Your task to perform on an android device: Open Amazon Image 0: 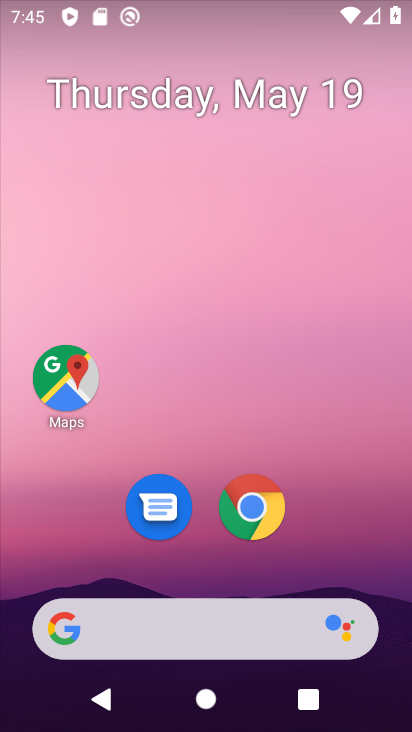
Step 0: drag from (310, 560) to (308, 204)
Your task to perform on an android device: Open Amazon Image 1: 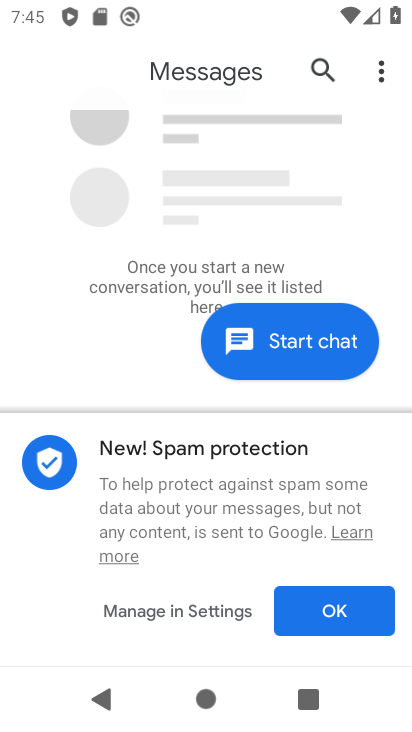
Step 1: press home button
Your task to perform on an android device: Open Amazon Image 2: 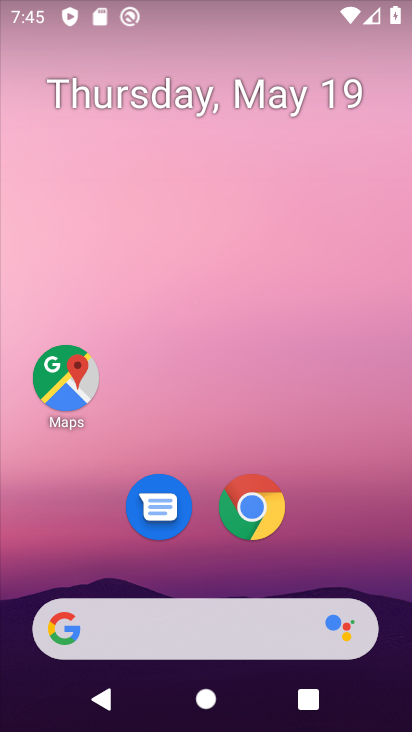
Step 2: click (255, 505)
Your task to perform on an android device: Open Amazon Image 3: 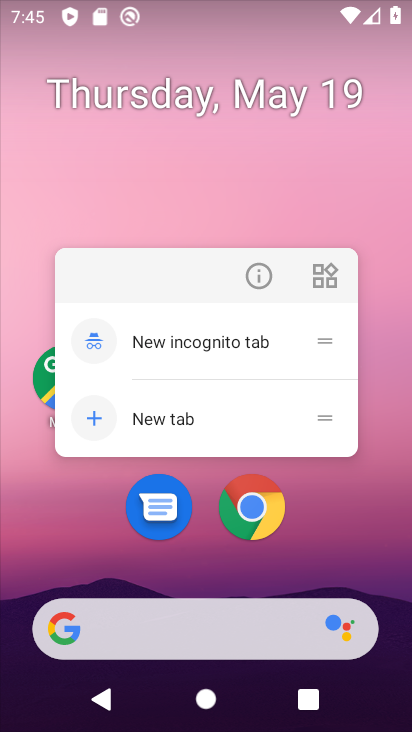
Step 3: click (255, 514)
Your task to perform on an android device: Open Amazon Image 4: 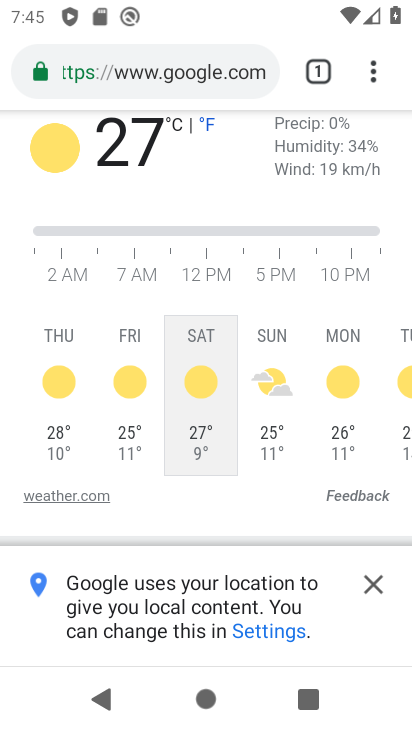
Step 4: drag from (295, 89) to (278, 311)
Your task to perform on an android device: Open Amazon Image 5: 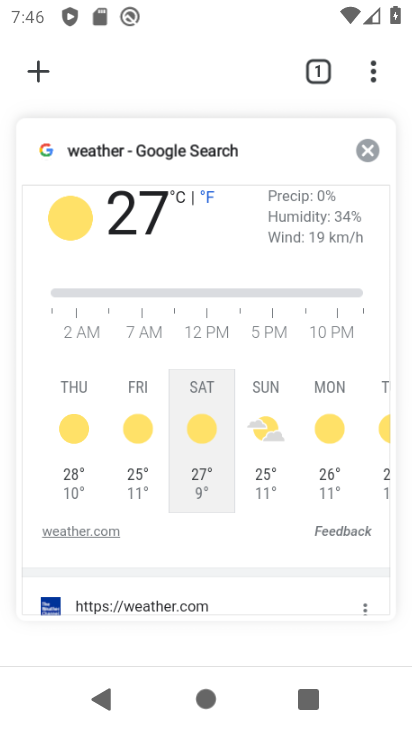
Step 5: drag from (229, 268) to (255, 94)
Your task to perform on an android device: Open Amazon Image 6: 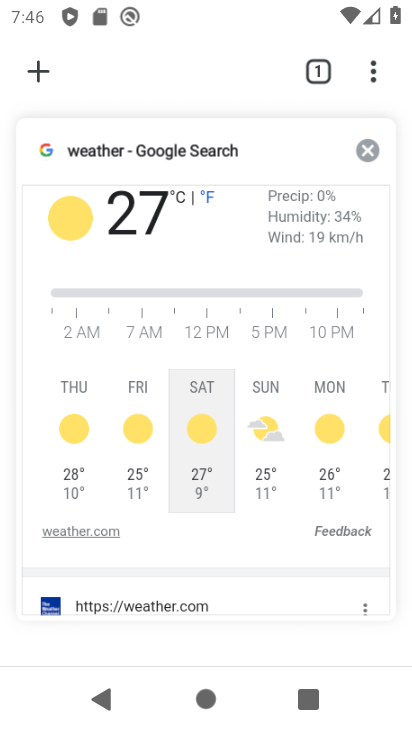
Step 6: click (213, 236)
Your task to perform on an android device: Open Amazon Image 7: 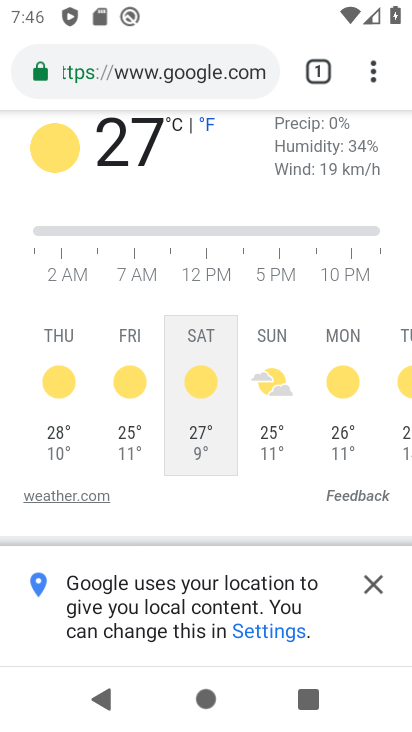
Step 7: click (243, 63)
Your task to perform on an android device: Open Amazon Image 8: 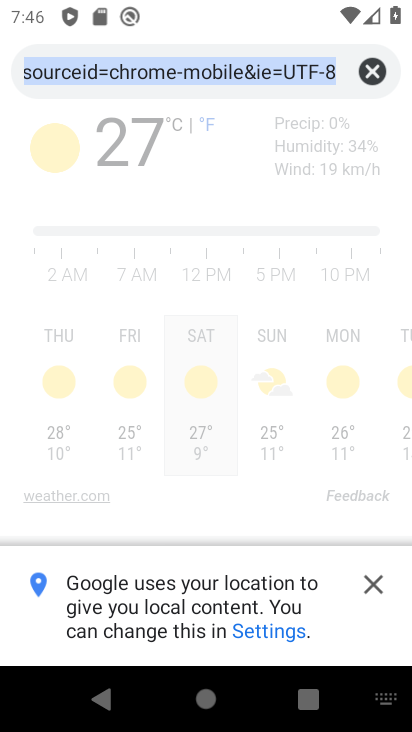
Step 8: click (383, 67)
Your task to perform on an android device: Open Amazon Image 9: 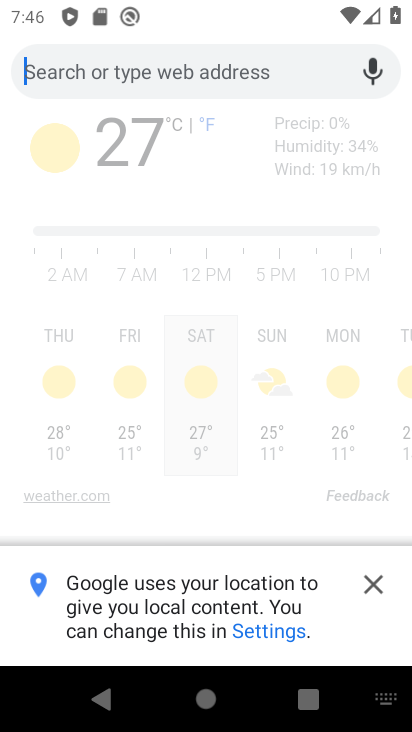
Step 9: type "amazon"
Your task to perform on an android device: Open Amazon Image 10: 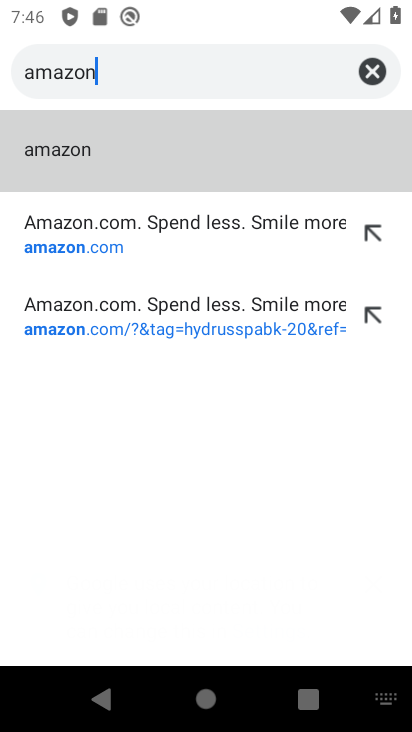
Step 10: click (59, 254)
Your task to perform on an android device: Open Amazon Image 11: 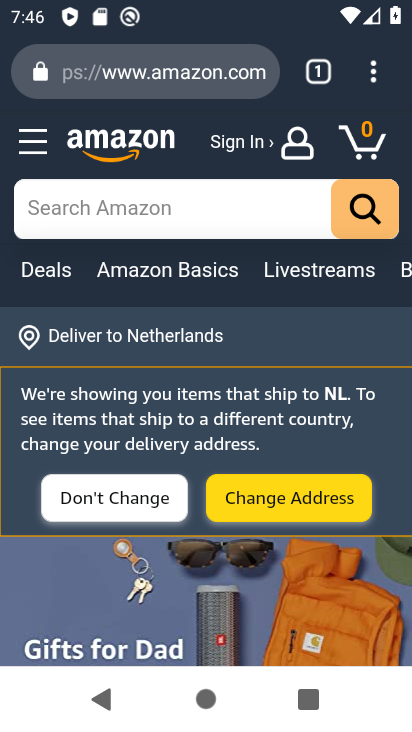
Step 11: task complete